Your task to perform on an android device: turn on the 12-hour format for clock Image 0: 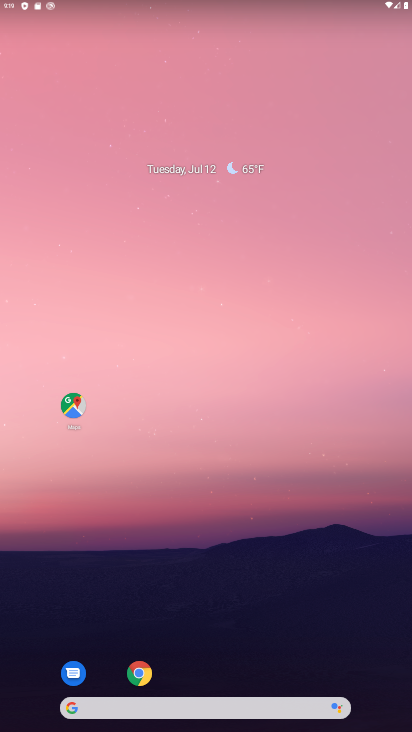
Step 0: drag from (310, 652) to (313, 90)
Your task to perform on an android device: turn on the 12-hour format for clock Image 1: 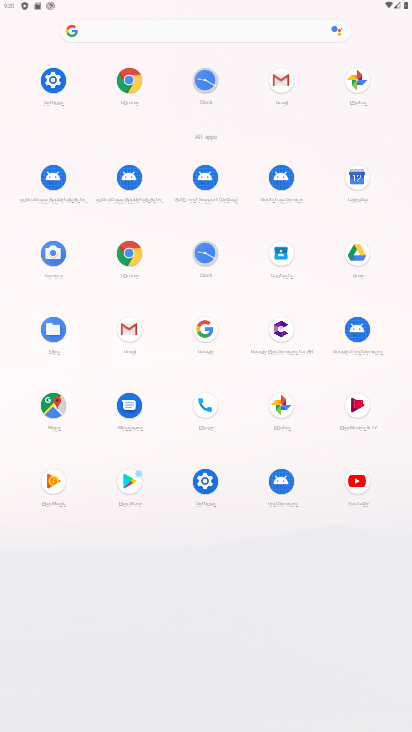
Step 1: click (203, 258)
Your task to perform on an android device: turn on the 12-hour format for clock Image 2: 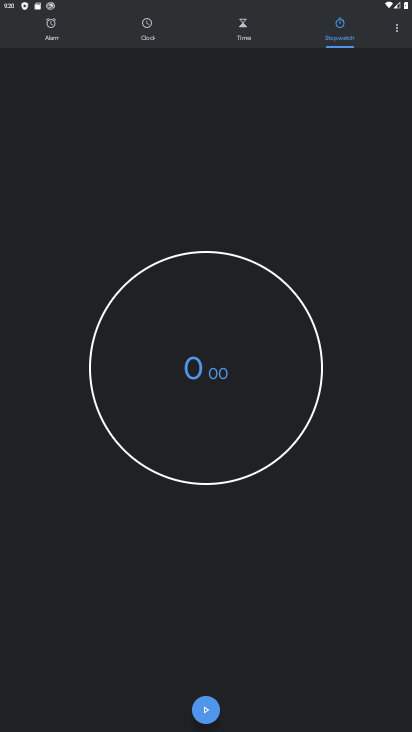
Step 2: click (399, 30)
Your task to perform on an android device: turn on the 12-hour format for clock Image 3: 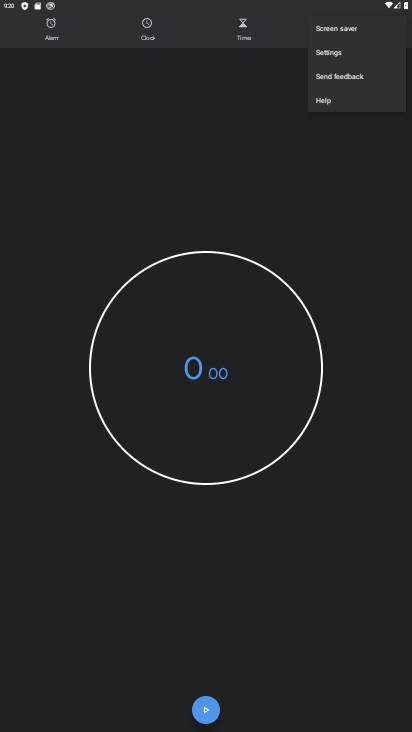
Step 3: click (349, 53)
Your task to perform on an android device: turn on the 12-hour format for clock Image 4: 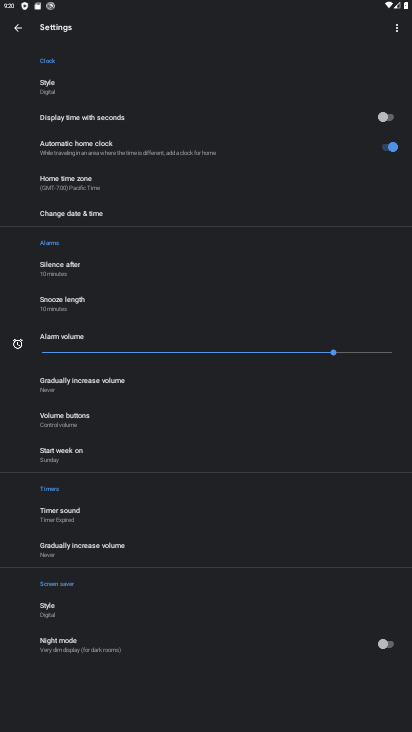
Step 4: drag from (244, 451) to (245, 289)
Your task to perform on an android device: turn on the 12-hour format for clock Image 5: 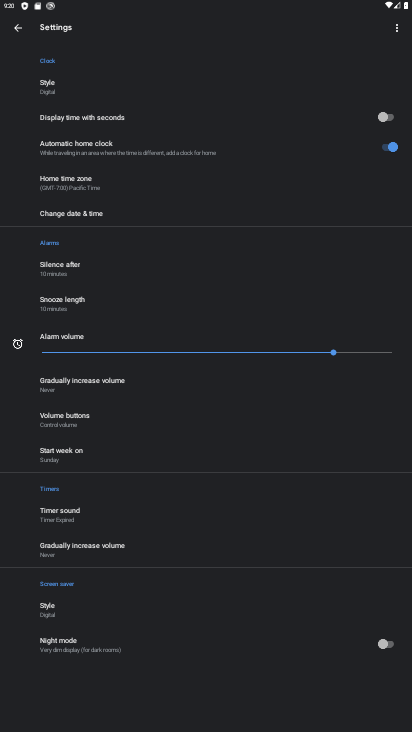
Step 5: drag from (267, 182) to (262, 322)
Your task to perform on an android device: turn on the 12-hour format for clock Image 6: 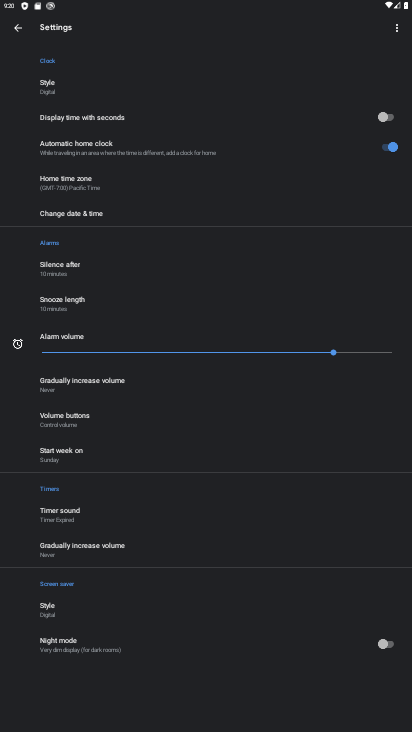
Step 6: drag from (269, 158) to (266, 302)
Your task to perform on an android device: turn on the 12-hour format for clock Image 7: 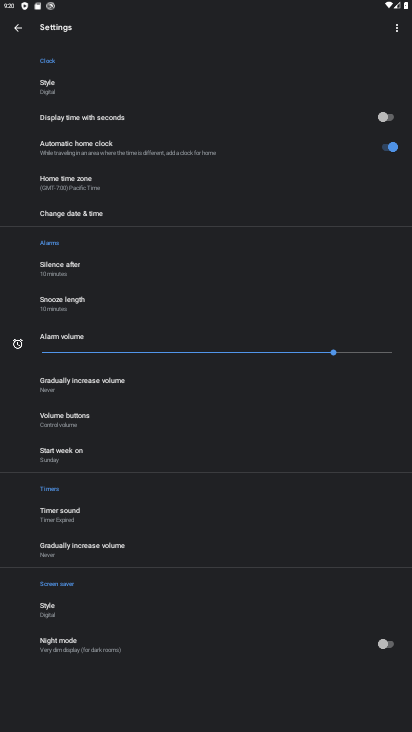
Step 7: click (101, 221)
Your task to perform on an android device: turn on the 12-hour format for clock Image 8: 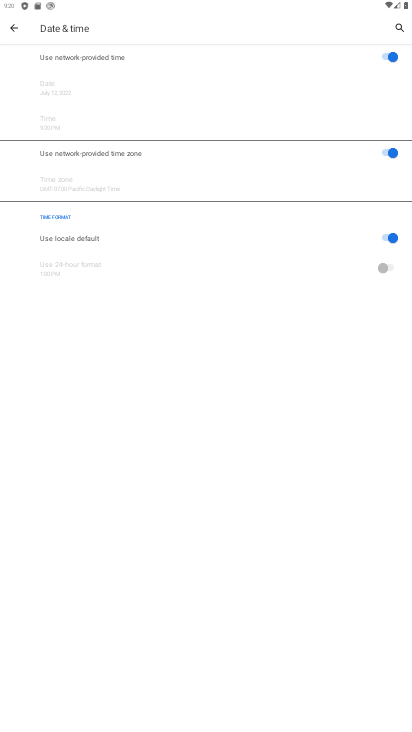
Step 8: click (388, 234)
Your task to perform on an android device: turn on the 12-hour format for clock Image 9: 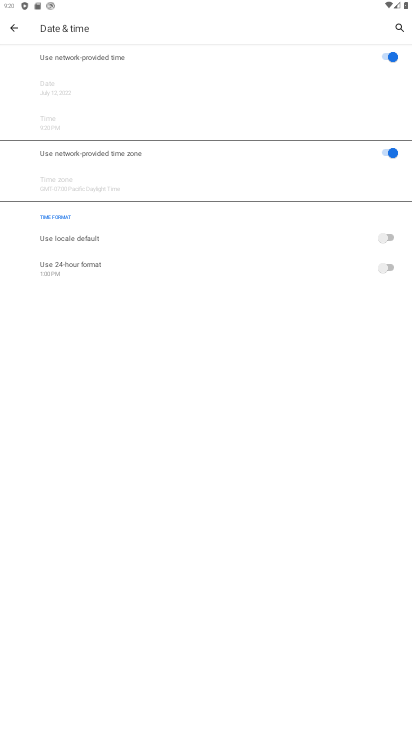
Step 9: click (380, 239)
Your task to perform on an android device: turn on the 12-hour format for clock Image 10: 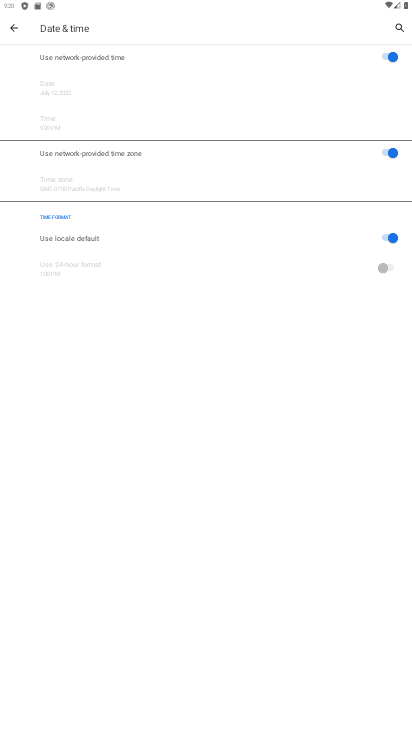
Step 10: task complete